Your task to perform on an android device: Show me popular games on the Play Store Image 0: 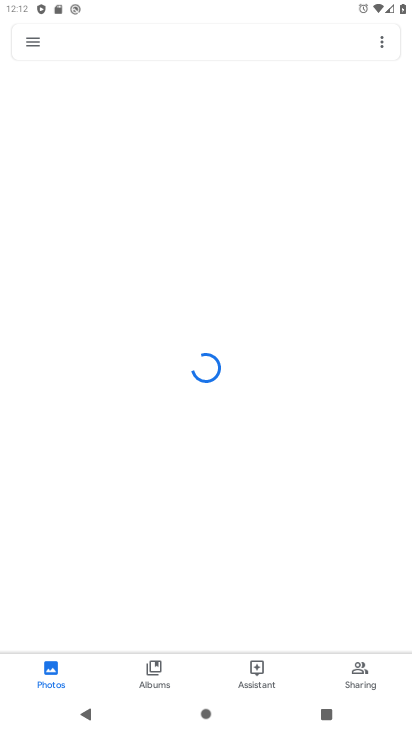
Step 0: press home button
Your task to perform on an android device: Show me popular games on the Play Store Image 1: 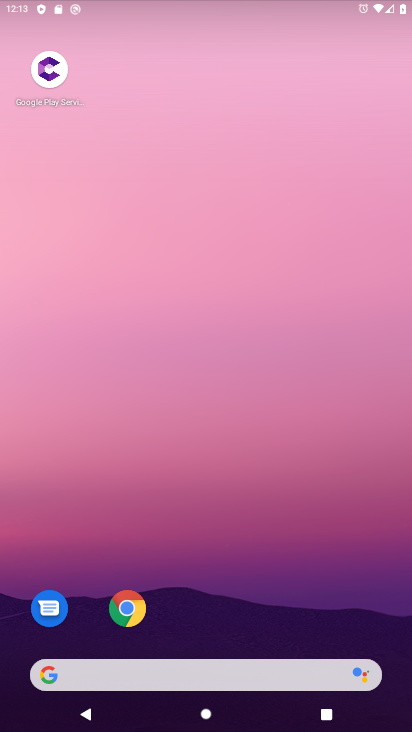
Step 1: drag from (215, 575) to (209, 164)
Your task to perform on an android device: Show me popular games on the Play Store Image 2: 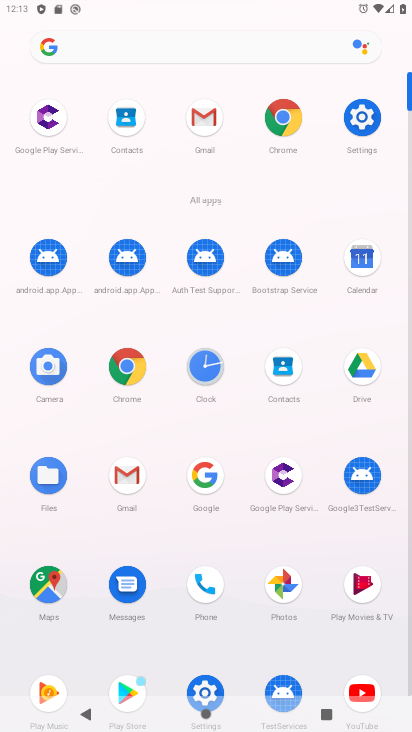
Step 2: click (134, 691)
Your task to perform on an android device: Show me popular games on the Play Store Image 3: 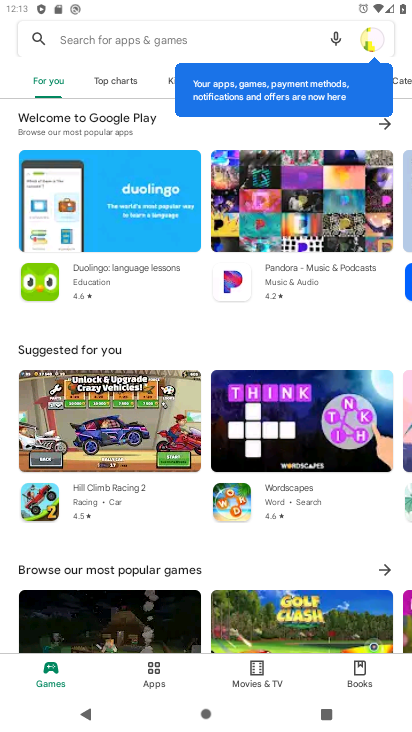
Step 3: task complete